Your task to perform on an android device: Add macbook air to the cart on costco Image 0: 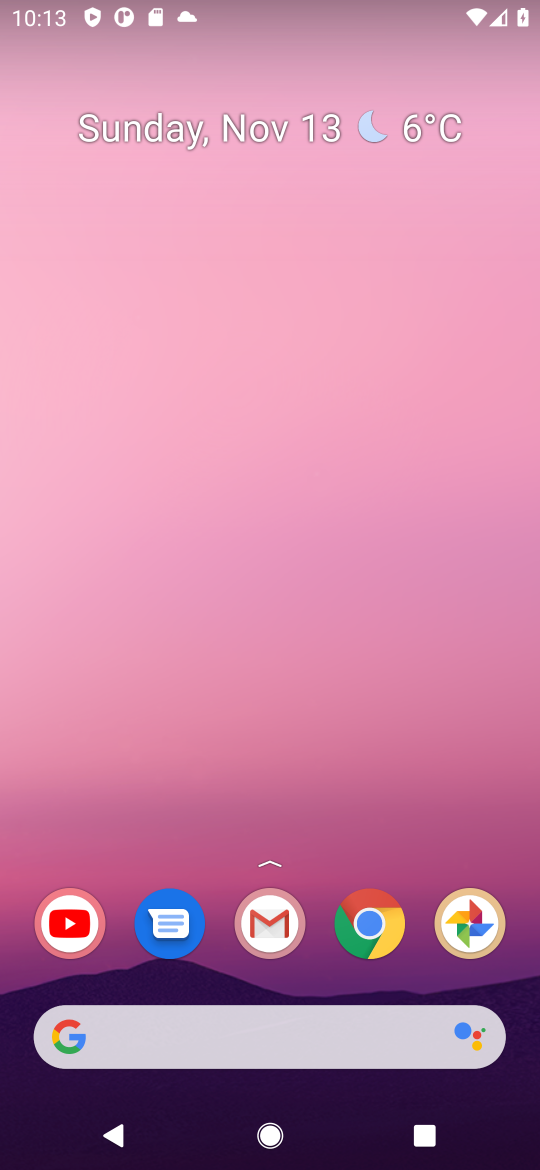
Step 0: click (363, 916)
Your task to perform on an android device: Add macbook air to the cart on costco Image 1: 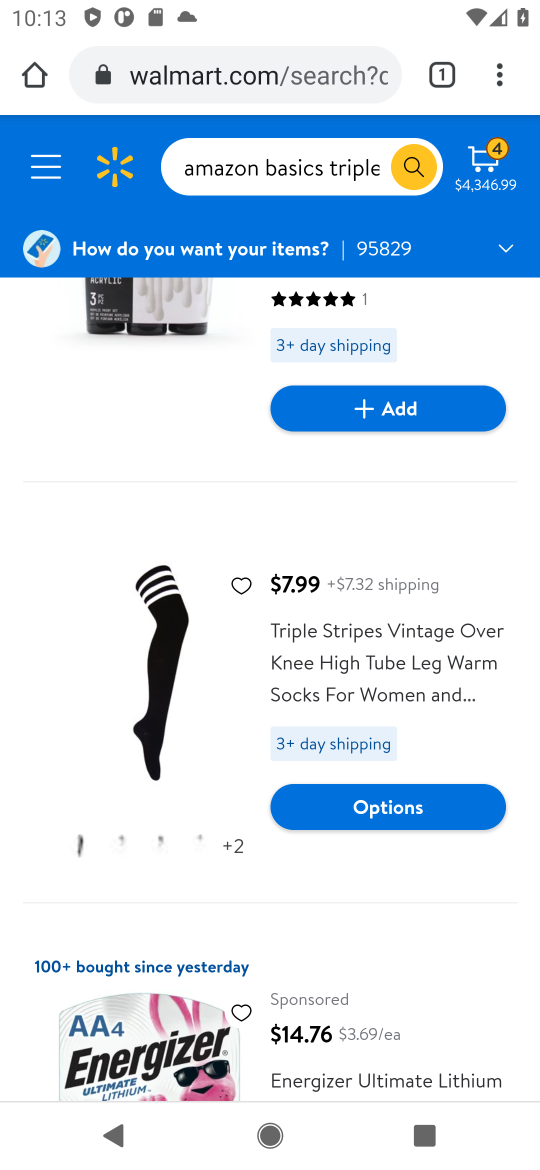
Step 1: click (301, 66)
Your task to perform on an android device: Add macbook air to the cart on costco Image 2: 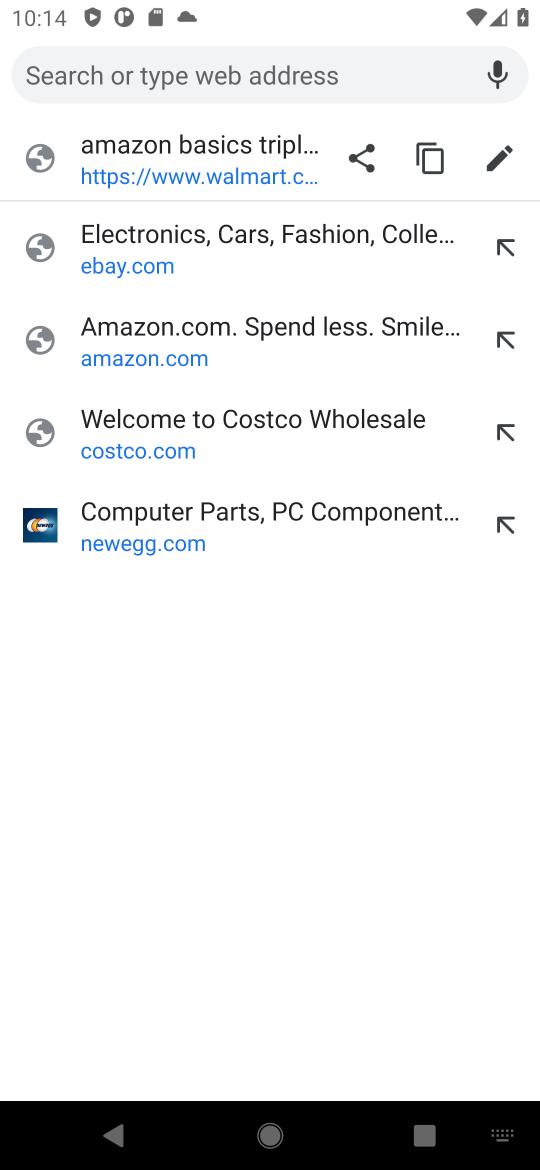
Step 2: click (205, 418)
Your task to perform on an android device: Add macbook air to the cart on costco Image 3: 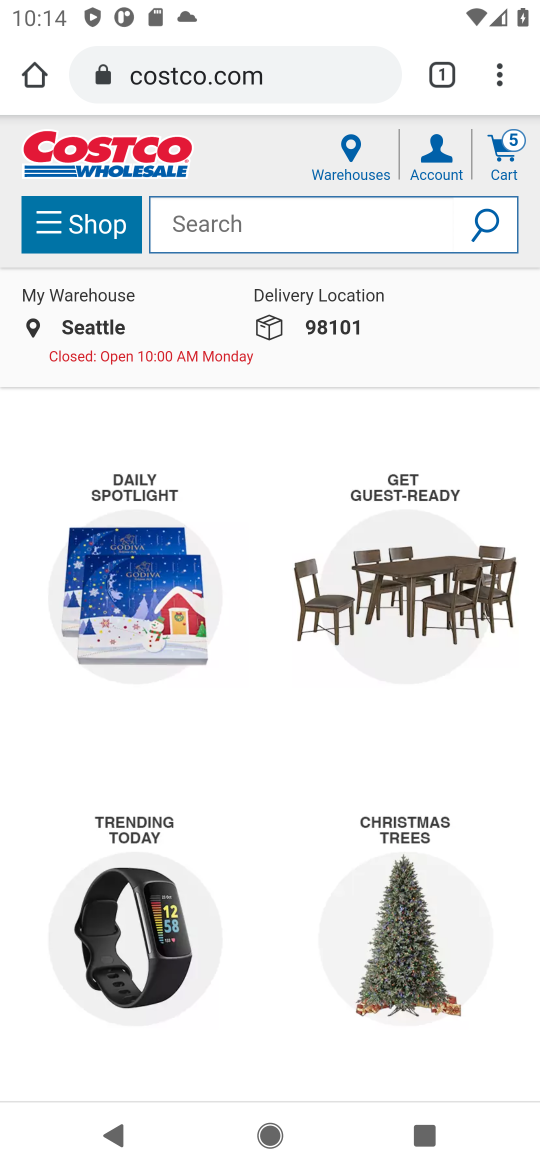
Step 3: click (488, 220)
Your task to perform on an android device: Add macbook air to the cart on costco Image 4: 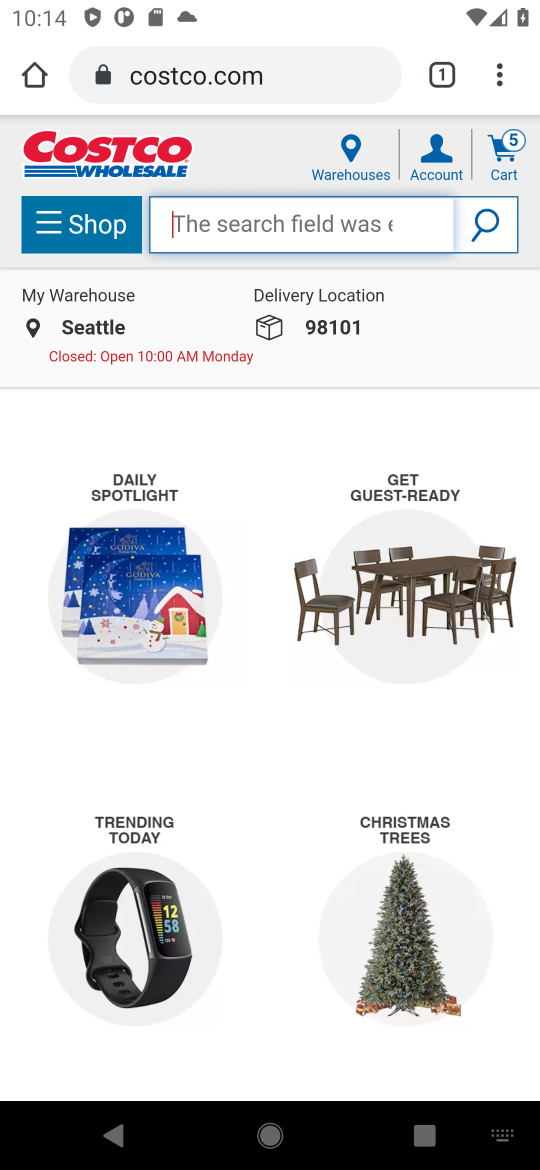
Step 4: type "macbook air"
Your task to perform on an android device: Add macbook air to the cart on costco Image 5: 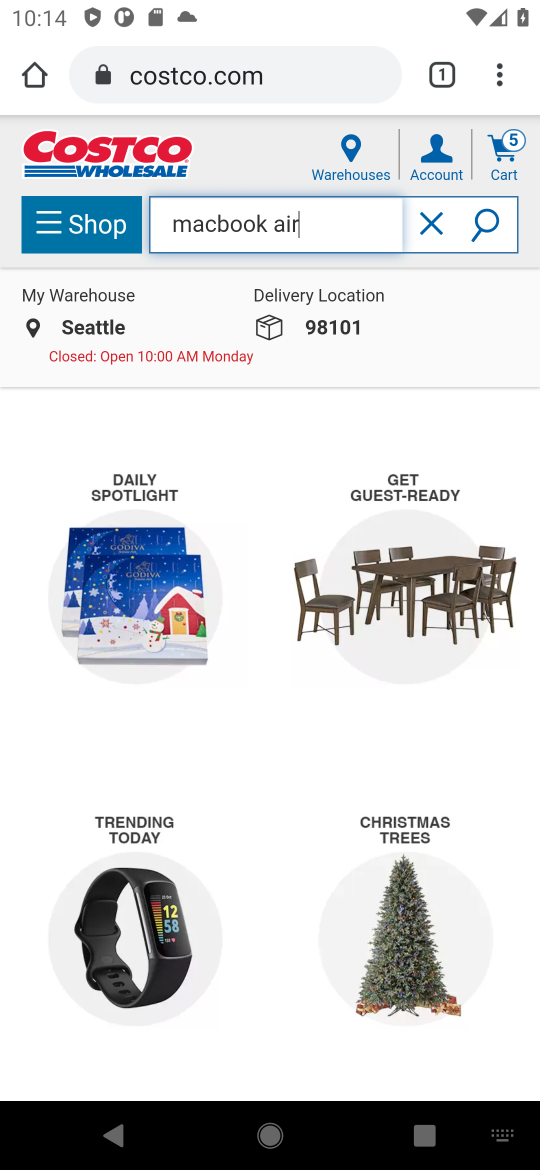
Step 5: press enter
Your task to perform on an android device: Add macbook air to the cart on costco Image 6: 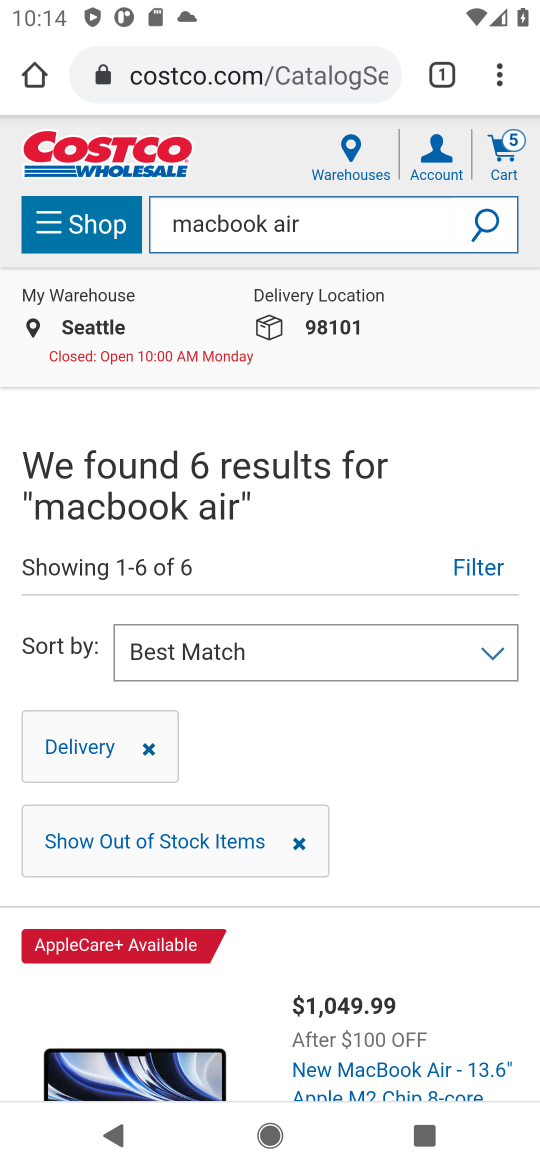
Step 6: drag from (406, 903) to (476, 543)
Your task to perform on an android device: Add macbook air to the cart on costco Image 7: 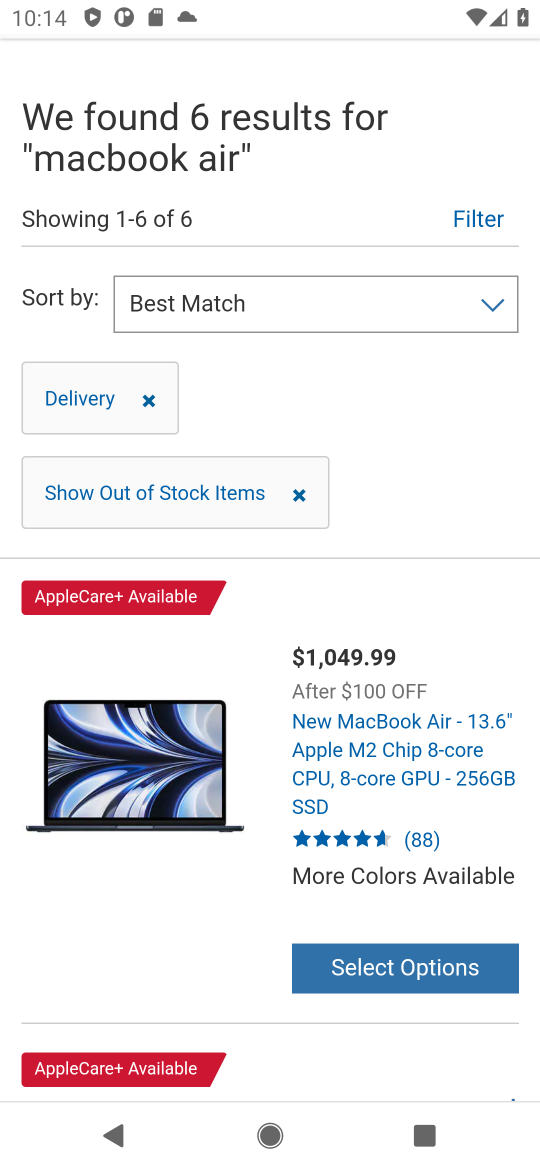
Step 7: drag from (373, 807) to (393, 298)
Your task to perform on an android device: Add macbook air to the cart on costco Image 8: 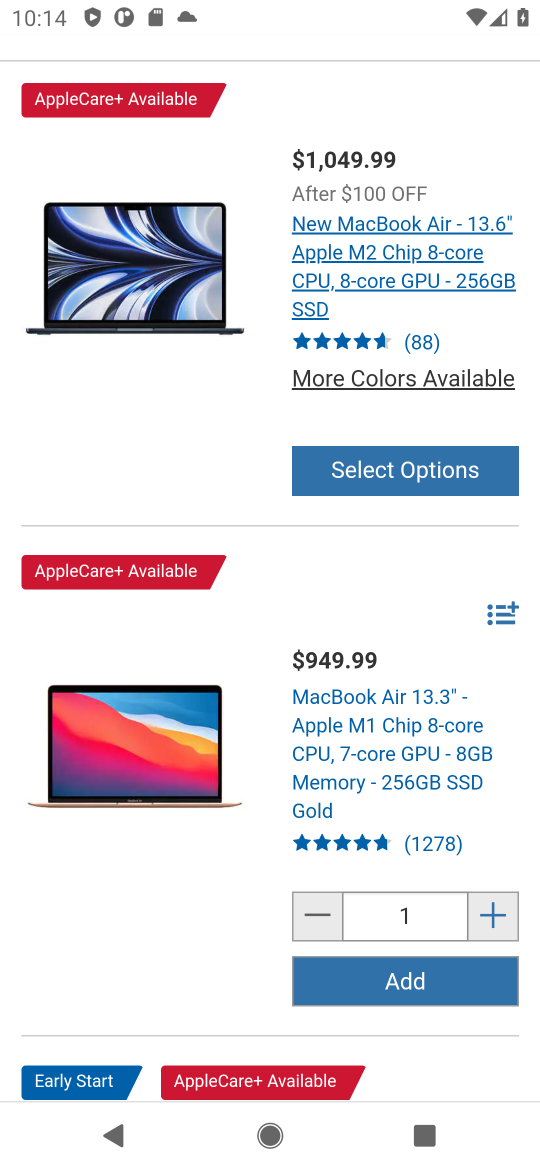
Step 8: click (124, 269)
Your task to perform on an android device: Add macbook air to the cart on costco Image 9: 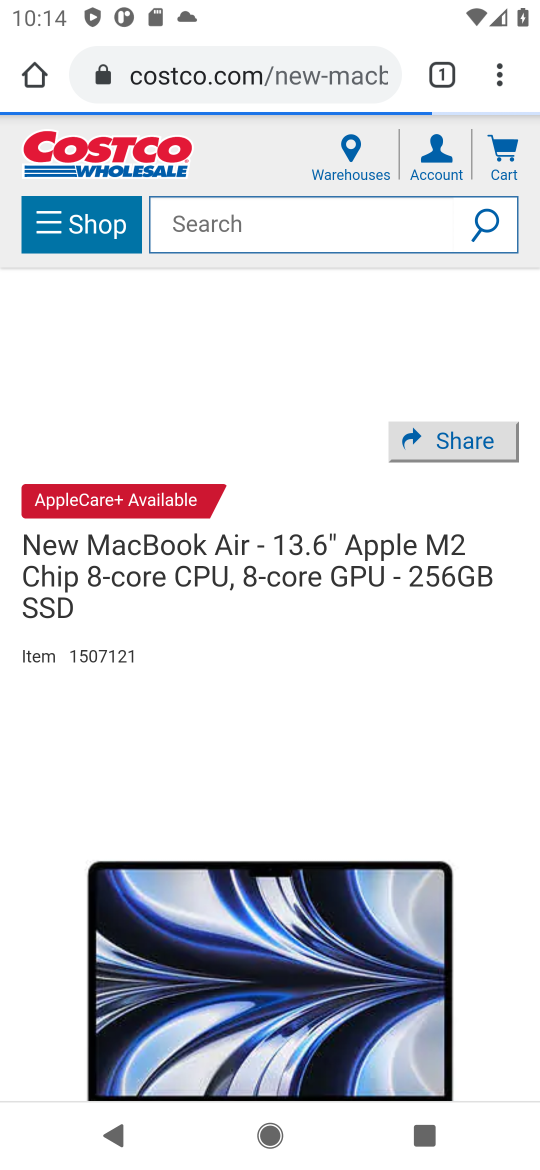
Step 9: drag from (505, 754) to (491, 305)
Your task to perform on an android device: Add macbook air to the cart on costco Image 10: 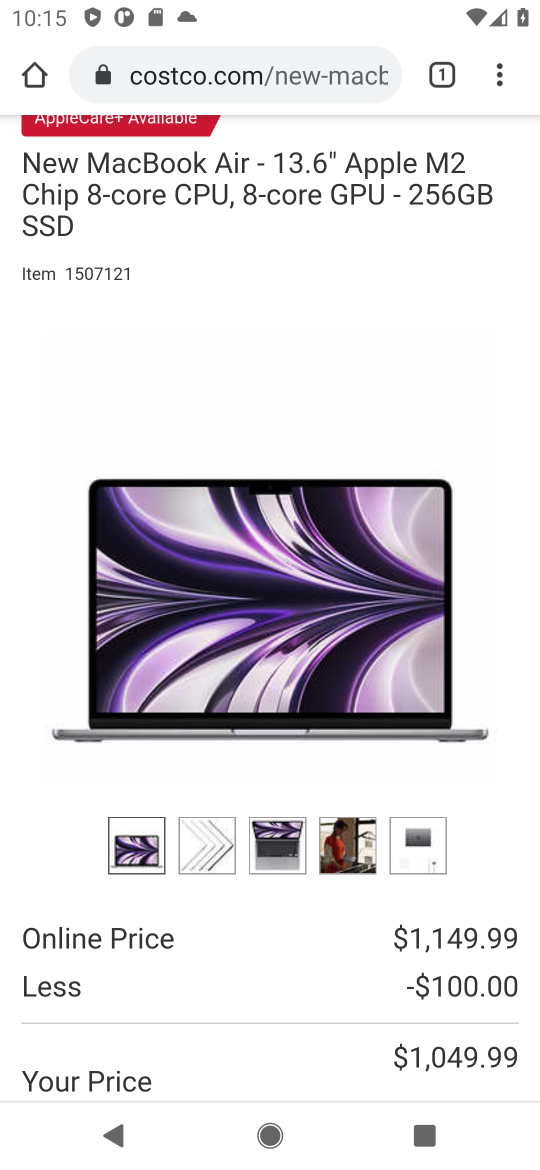
Step 10: drag from (280, 883) to (309, 582)
Your task to perform on an android device: Add macbook air to the cart on costco Image 11: 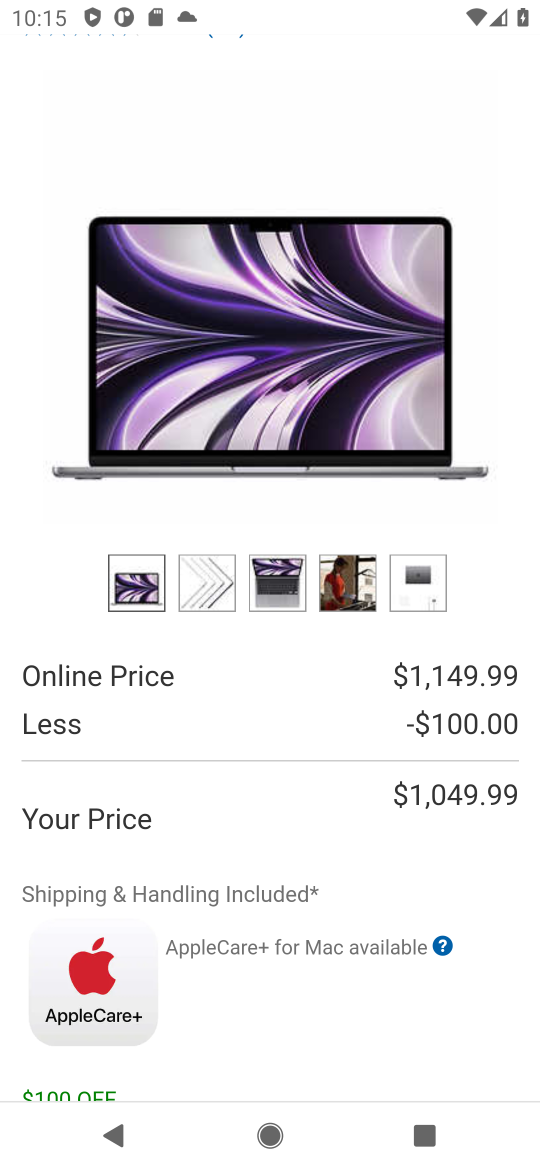
Step 11: drag from (381, 986) to (508, 134)
Your task to perform on an android device: Add macbook air to the cart on costco Image 12: 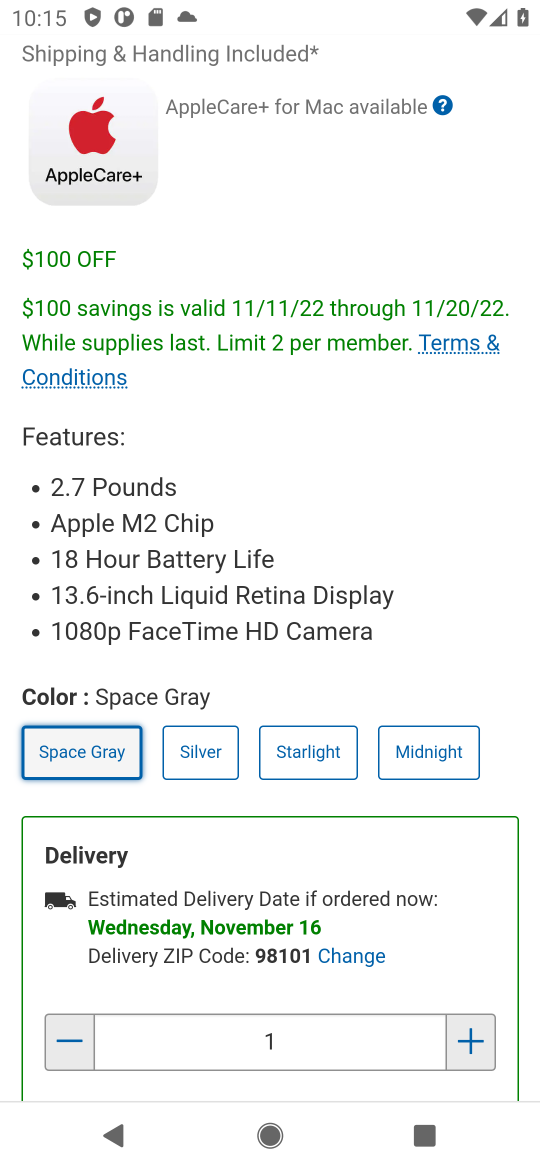
Step 12: drag from (442, 632) to (435, 209)
Your task to perform on an android device: Add macbook air to the cart on costco Image 13: 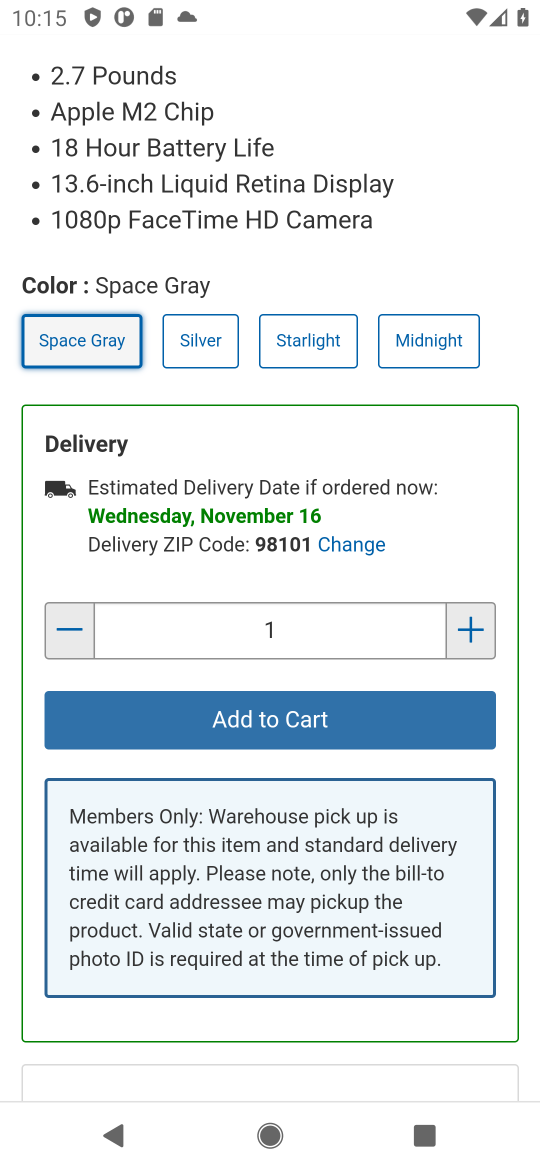
Step 13: click (334, 717)
Your task to perform on an android device: Add macbook air to the cart on costco Image 14: 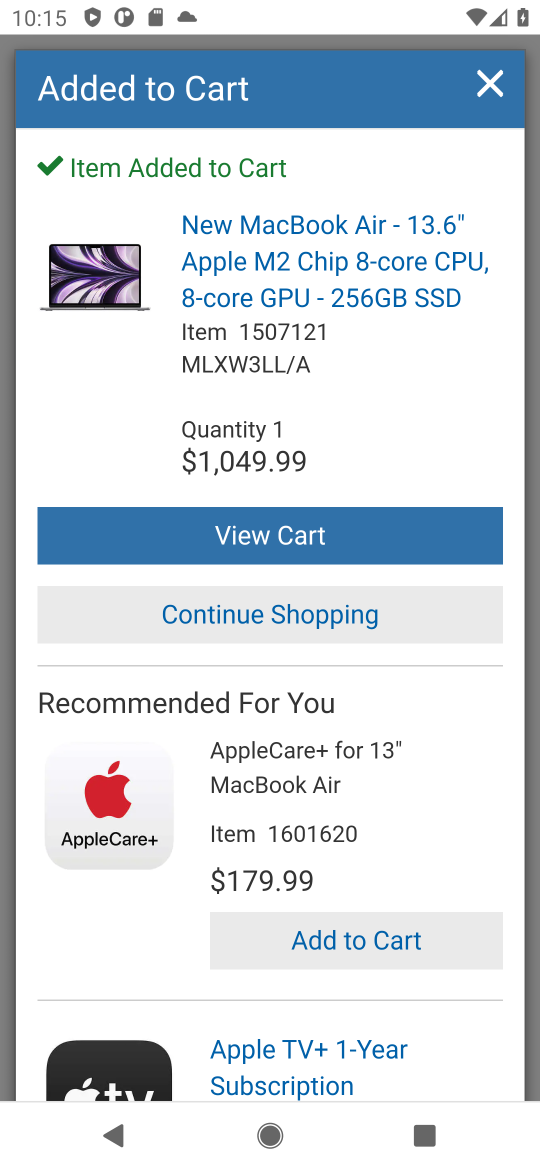
Step 14: task complete